Your task to perform on an android device: turn off airplane mode Image 0: 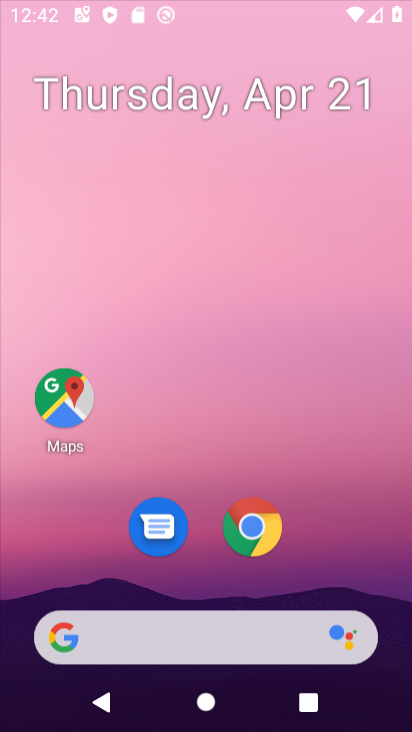
Step 0: drag from (358, 543) to (362, 204)
Your task to perform on an android device: turn off airplane mode Image 1: 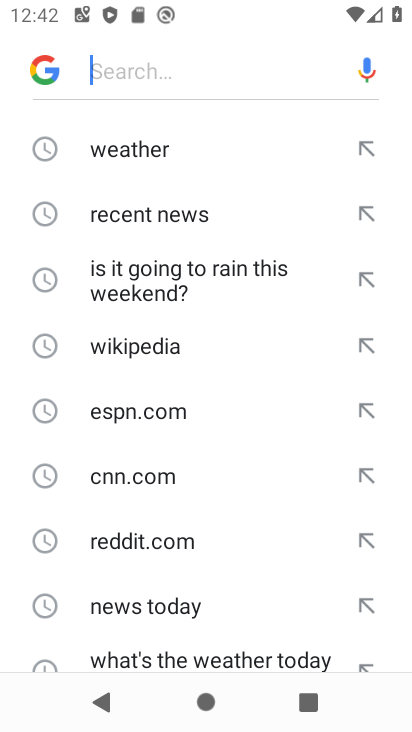
Step 1: press home button
Your task to perform on an android device: turn off airplane mode Image 2: 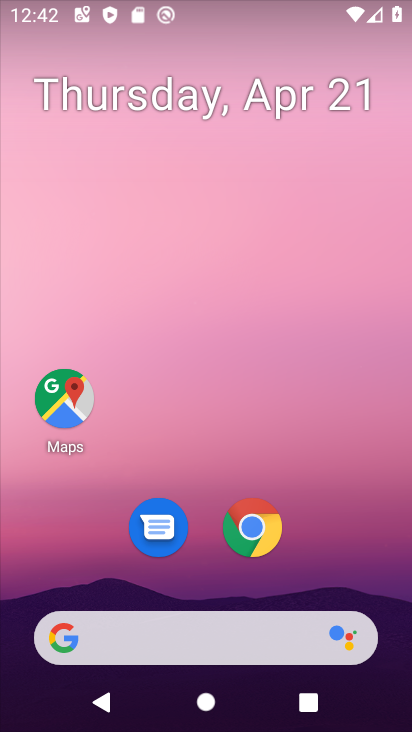
Step 2: drag from (344, 558) to (363, 177)
Your task to perform on an android device: turn off airplane mode Image 3: 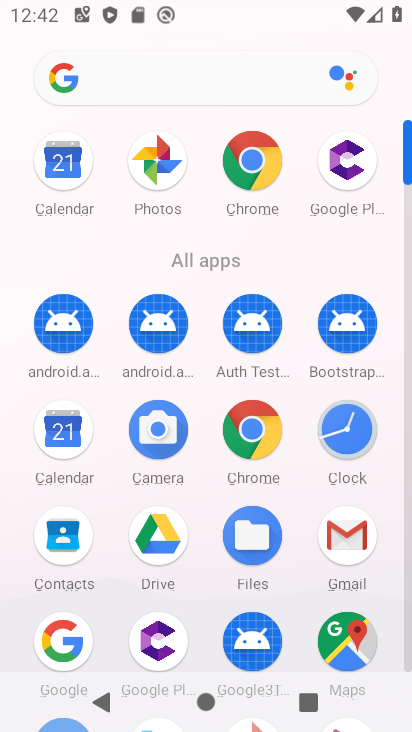
Step 3: drag from (202, 567) to (206, 168)
Your task to perform on an android device: turn off airplane mode Image 4: 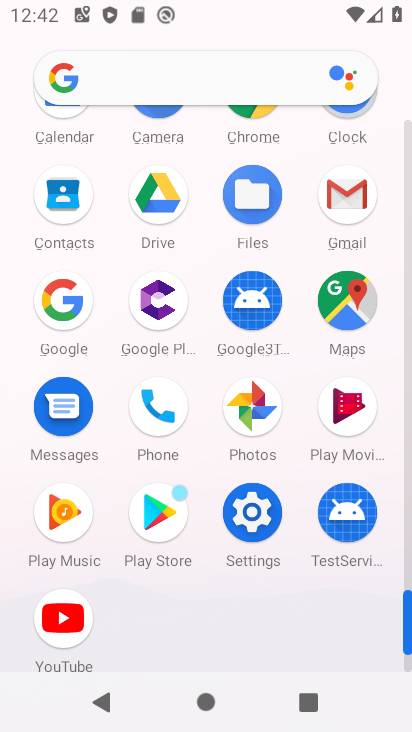
Step 4: click (259, 524)
Your task to perform on an android device: turn off airplane mode Image 5: 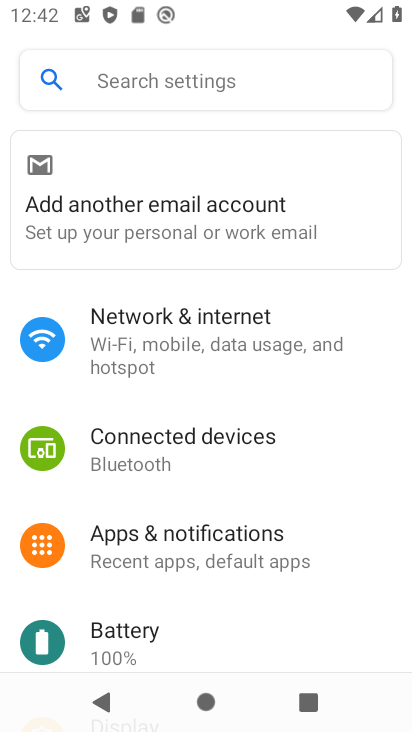
Step 5: click (224, 321)
Your task to perform on an android device: turn off airplane mode Image 6: 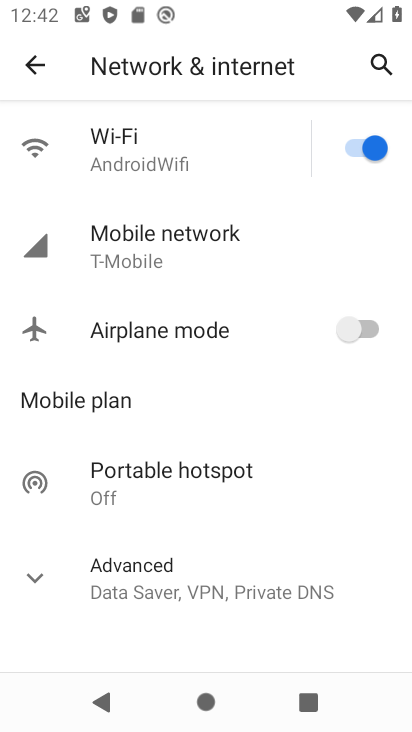
Step 6: task complete